Your task to perform on an android device: manage bookmarks in the chrome app Image 0: 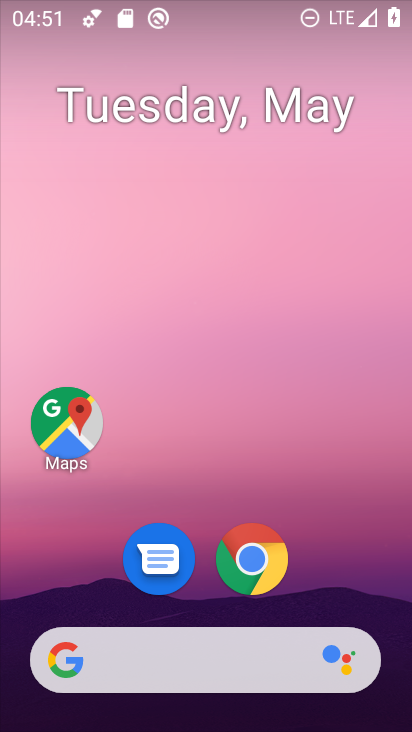
Step 0: click (252, 555)
Your task to perform on an android device: manage bookmarks in the chrome app Image 1: 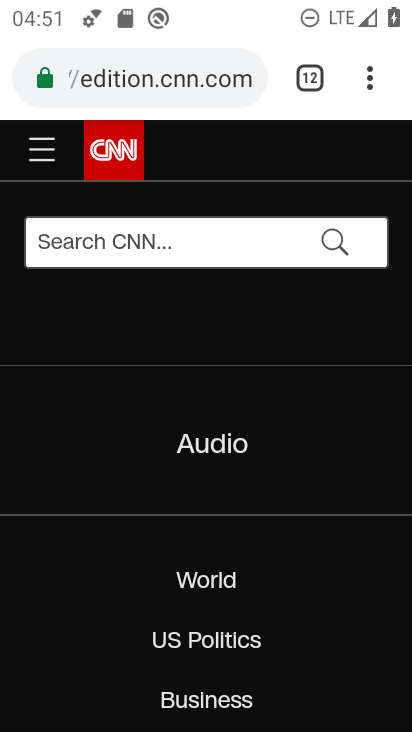
Step 1: click (373, 88)
Your task to perform on an android device: manage bookmarks in the chrome app Image 2: 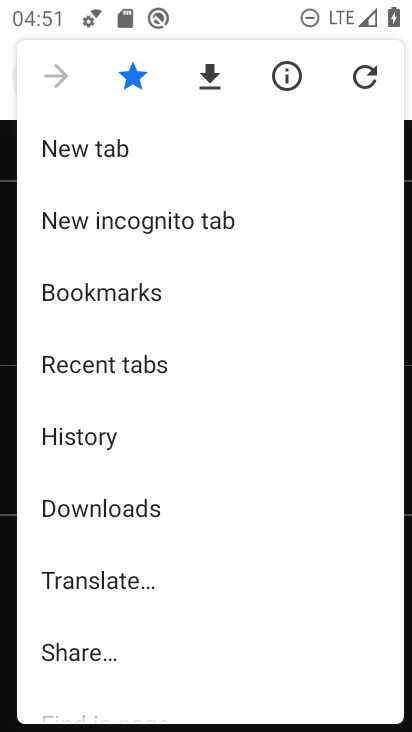
Step 2: click (127, 294)
Your task to perform on an android device: manage bookmarks in the chrome app Image 3: 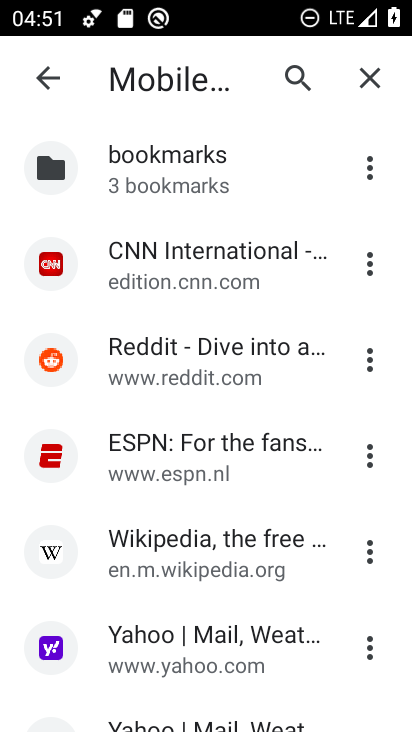
Step 3: click (372, 267)
Your task to perform on an android device: manage bookmarks in the chrome app Image 4: 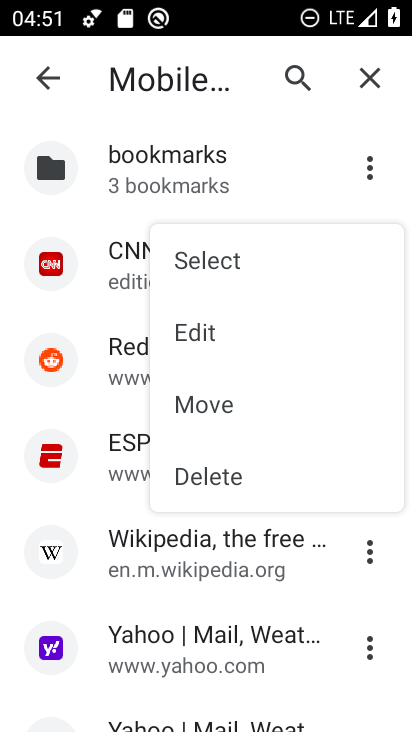
Step 4: click (195, 322)
Your task to perform on an android device: manage bookmarks in the chrome app Image 5: 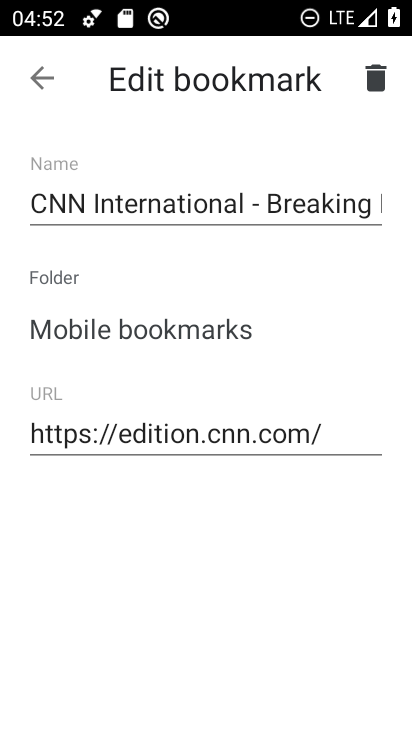
Step 5: click (147, 199)
Your task to perform on an android device: manage bookmarks in the chrome app Image 6: 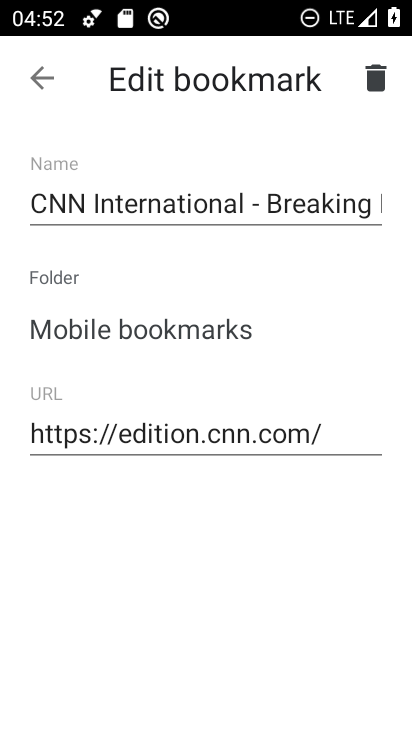
Step 6: click (147, 199)
Your task to perform on an android device: manage bookmarks in the chrome app Image 7: 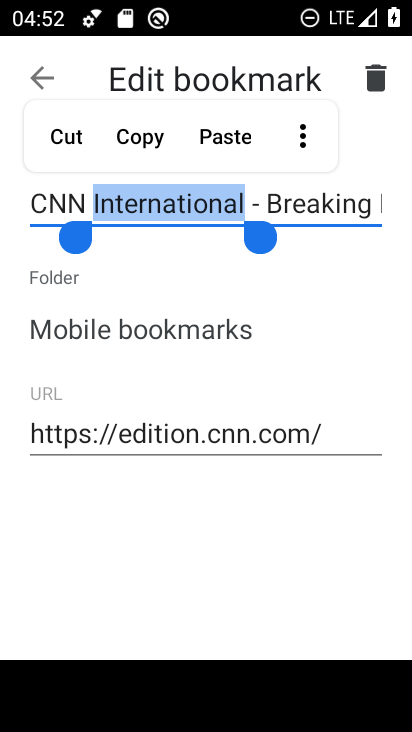
Step 7: click (63, 134)
Your task to perform on an android device: manage bookmarks in the chrome app Image 8: 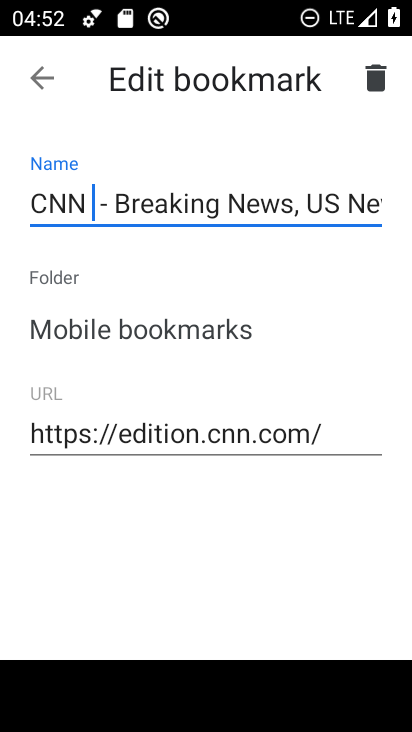
Step 8: click (40, 74)
Your task to perform on an android device: manage bookmarks in the chrome app Image 9: 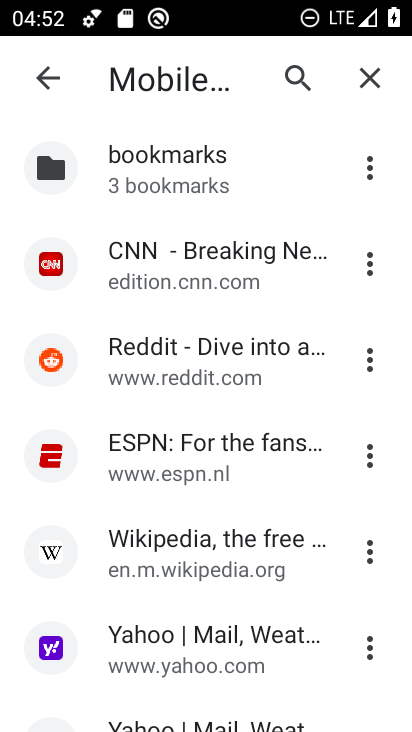
Step 9: task complete